Your task to perform on an android device: Turn off the flashlight Image 0: 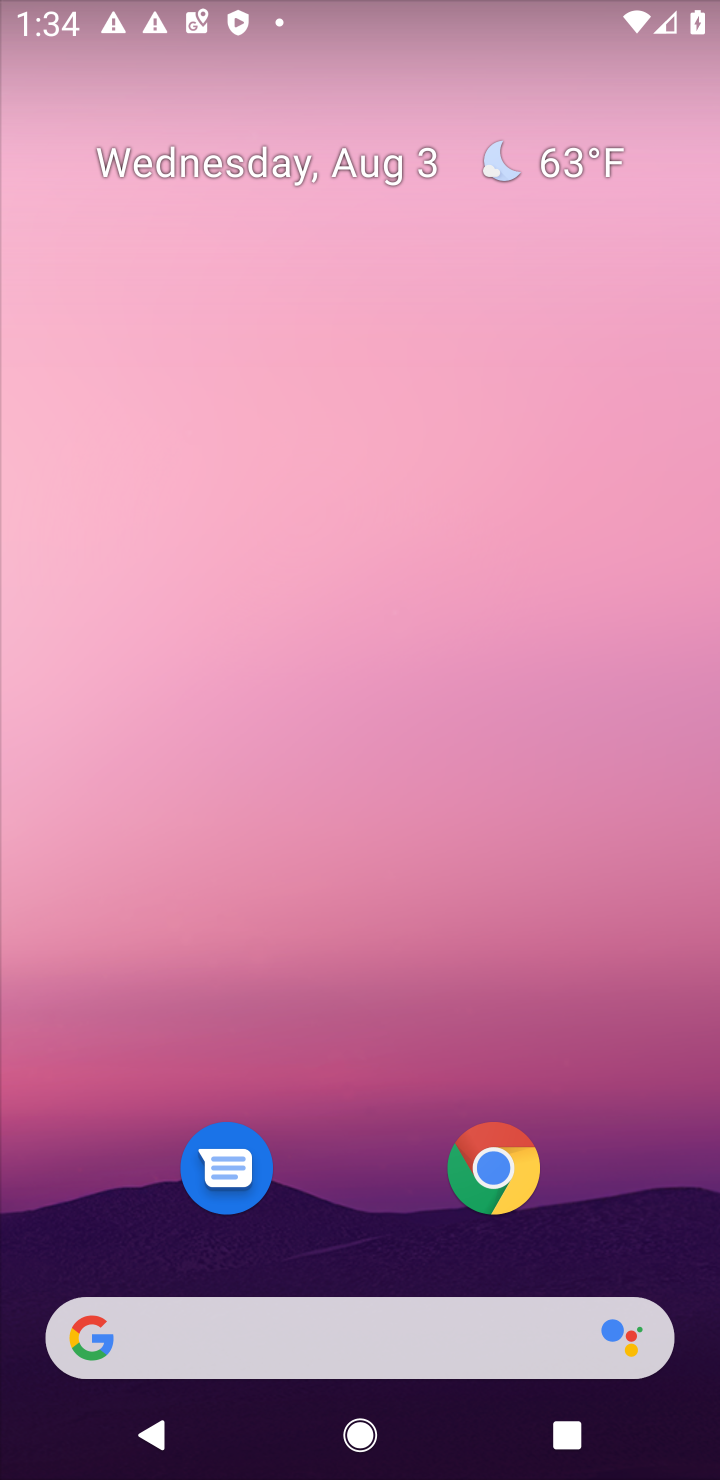
Step 0: drag from (430, 10) to (353, 959)
Your task to perform on an android device: Turn off the flashlight Image 1: 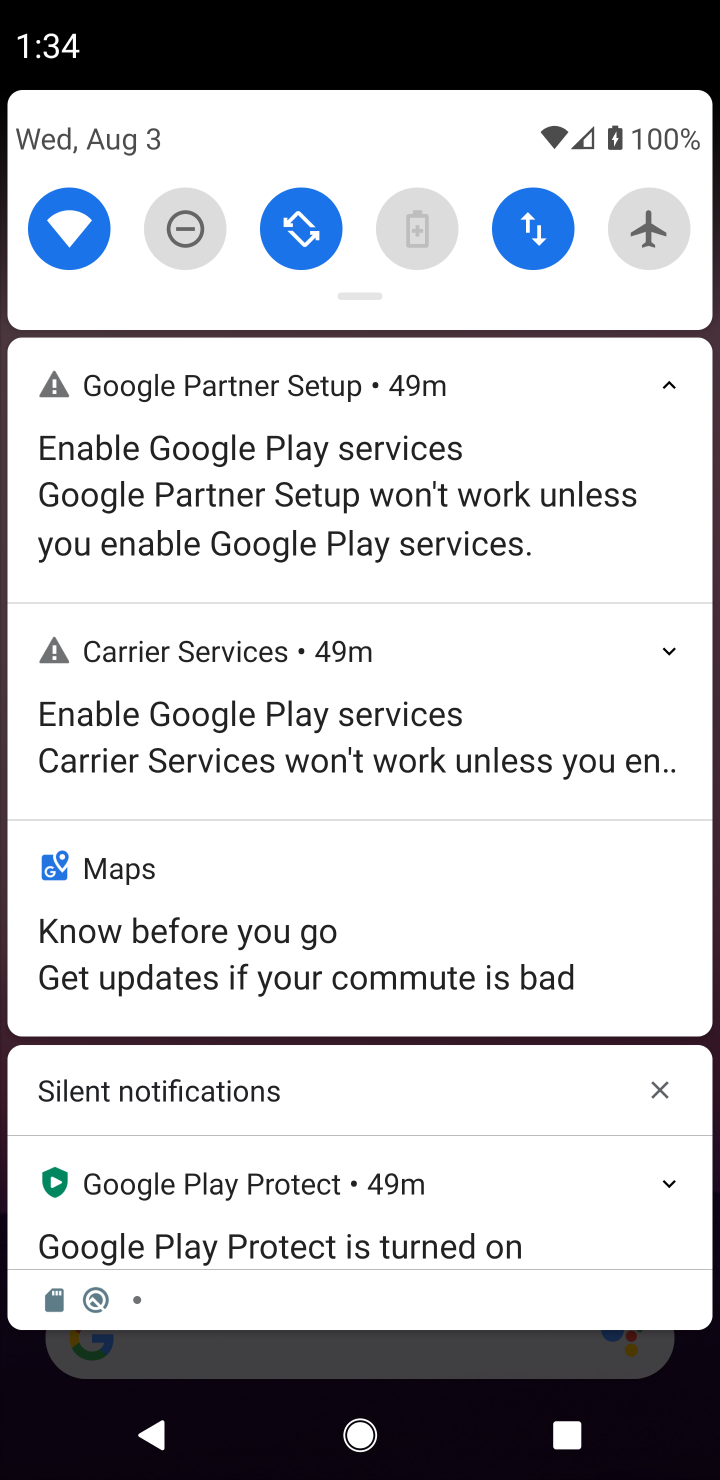
Step 1: drag from (366, 296) to (334, 946)
Your task to perform on an android device: Turn off the flashlight Image 2: 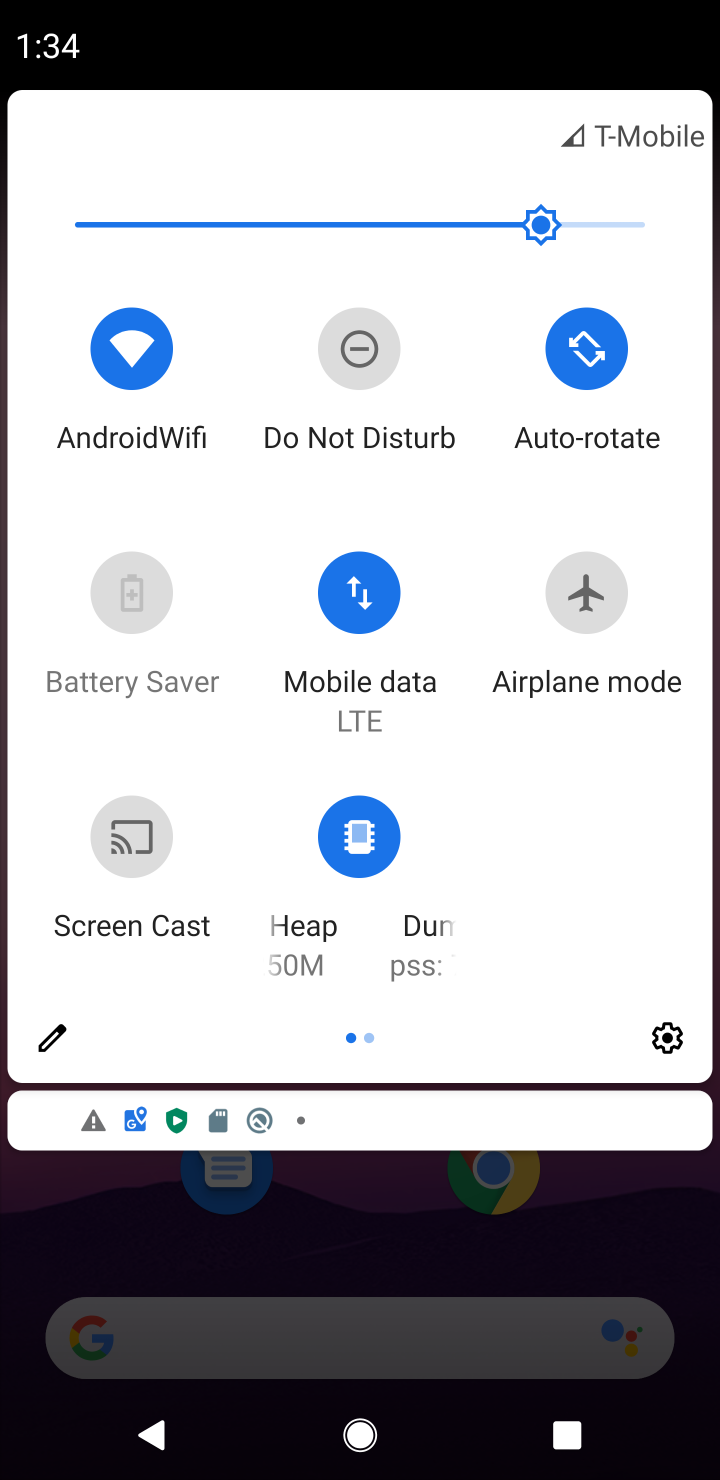
Step 2: click (42, 1027)
Your task to perform on an android device: Turn off the flashlight Image 3: 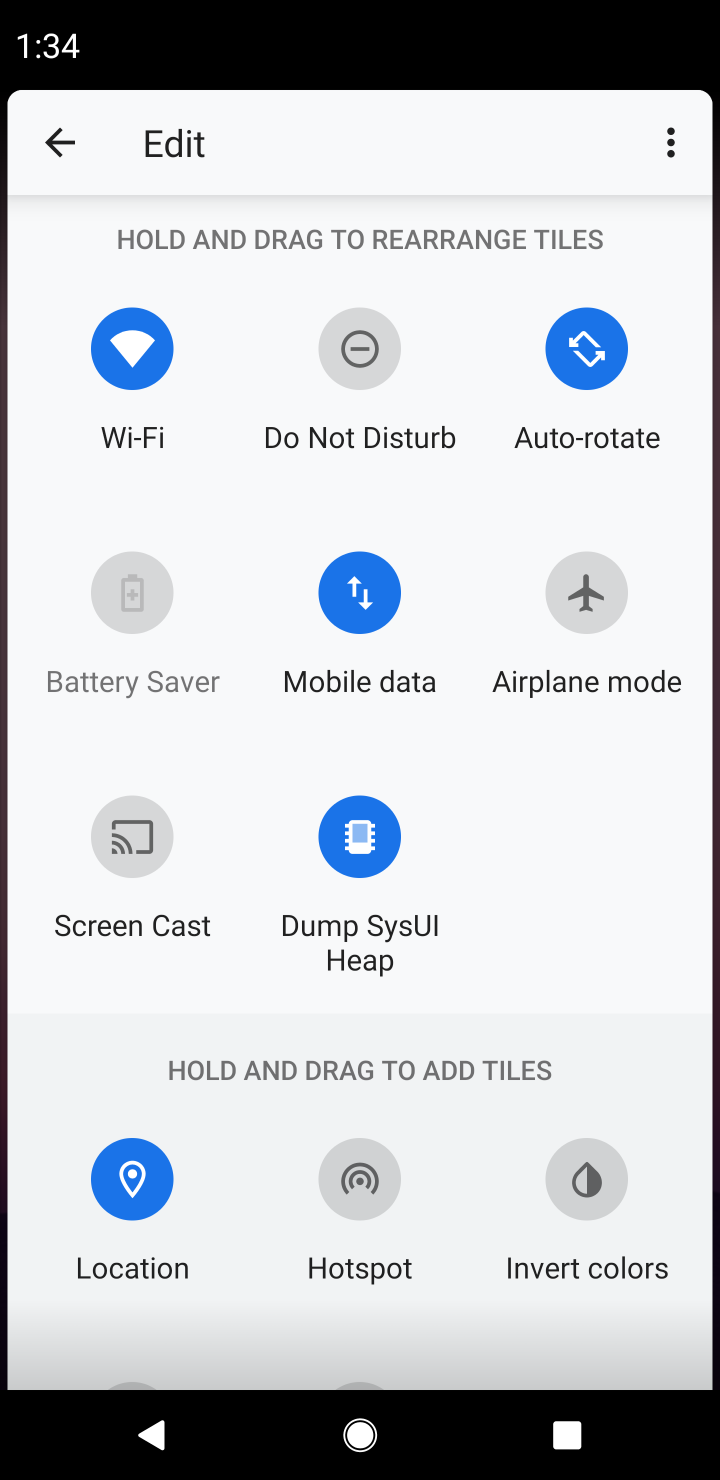
Step 3: task complete